Your task to perform on an android device: Go to Reddit.com Image 0: 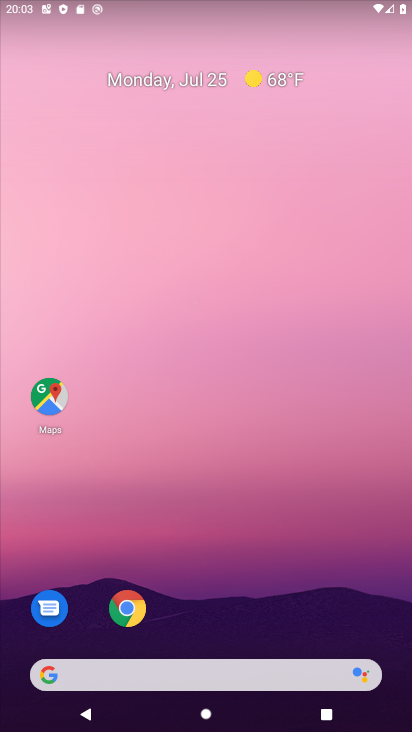
Step 0: click (155, 674)
Your task to perform on an android device: Go to Reddit.com Image 1: 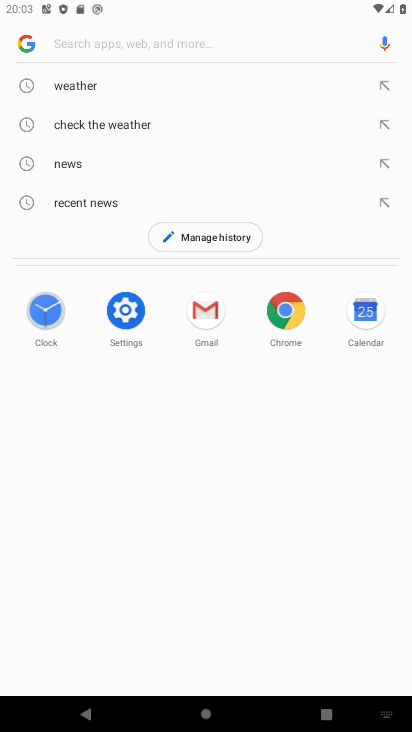
Step 1: click (144, 15)
Your task to perform on an android device: Go to Reddit.com Image 2: 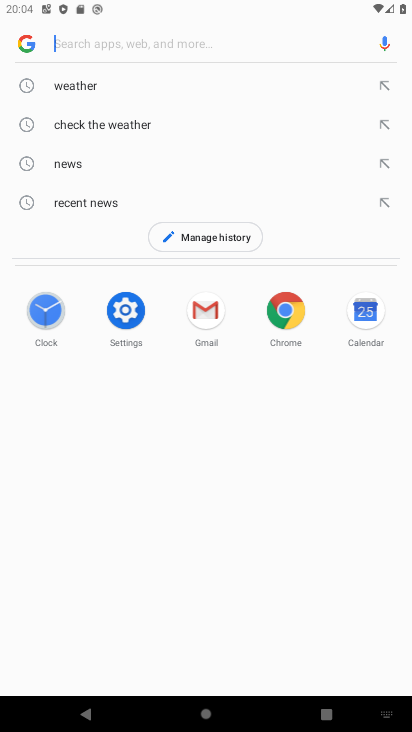
Step 2: type "reddit.com"
Your task to perform on an android device: Go to Reddit.com Image 3: 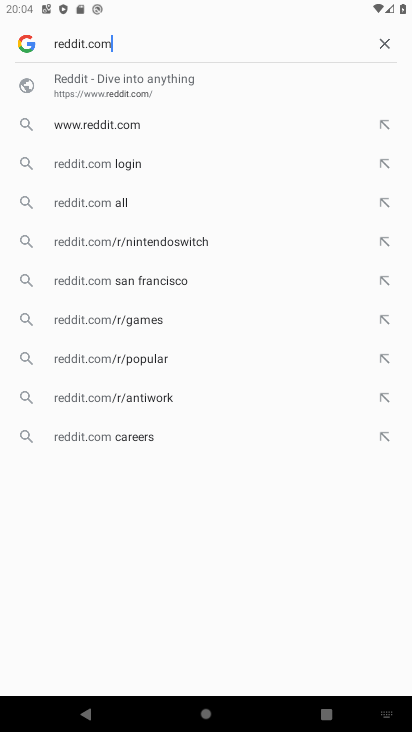
Step 3: click (94, 130)
Your task to perform on an android device: Go to Reddit.com Image 4: 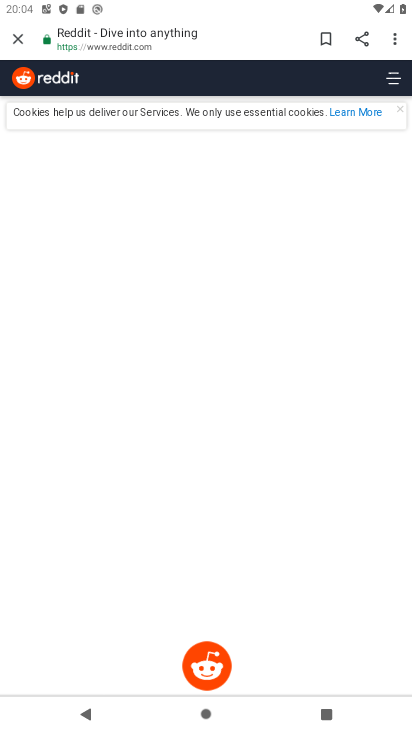
Step 4: task complete